Your task to perform on an android device: Toggle the flashlight Image 0: 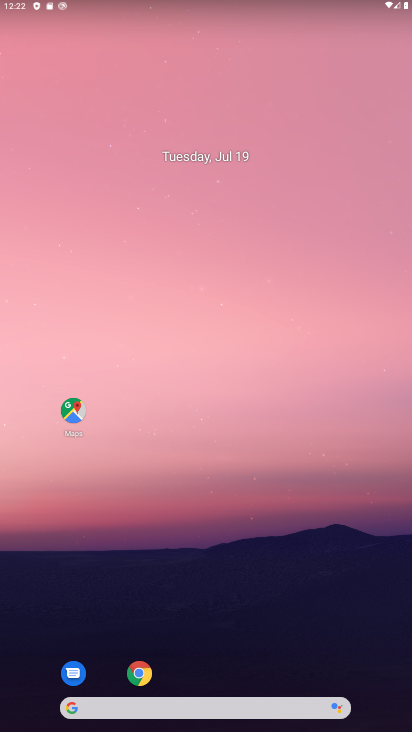
Step 0: drag from (296, 6) to (285, 553)
Your task to perform on an android device: Toggle the flashlight Image 1: 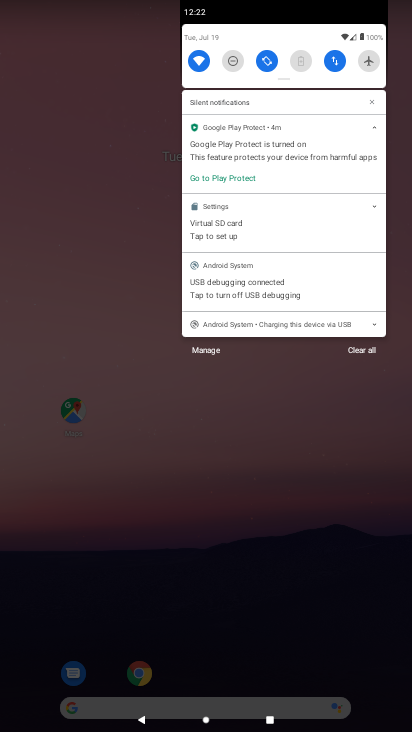
Step 1: drag from (286, 65) to (315, 370)
Your task to perform on an android device: Toggle the flashlight Image 2: 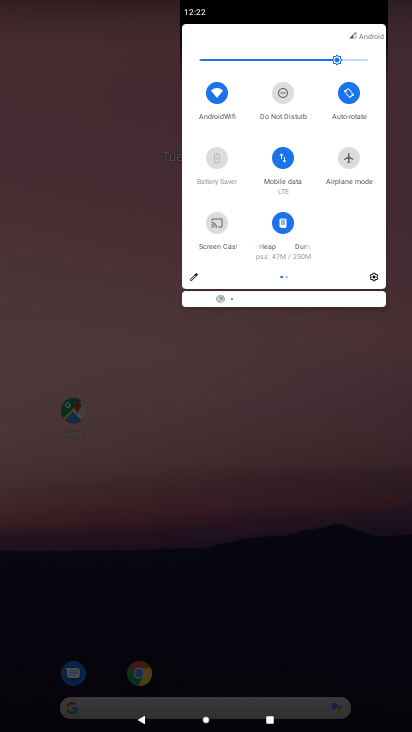
Step 2: click (196, 276)
Your task to perform on an android device: Toggle the flashlight Image 3: 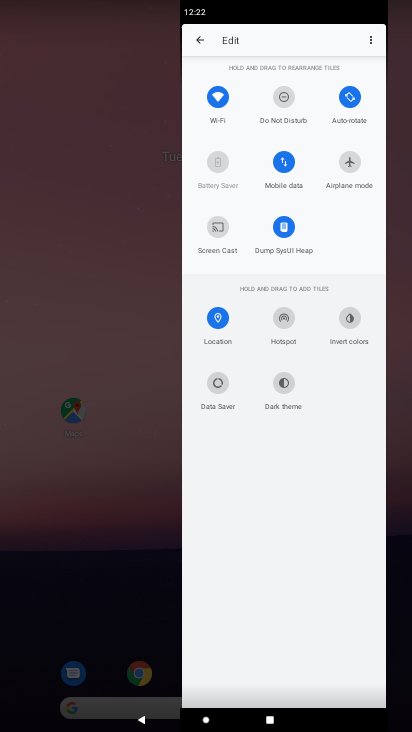
Step 3: task complete